Your task to perform on an android device: turn notification dots on Image 0: 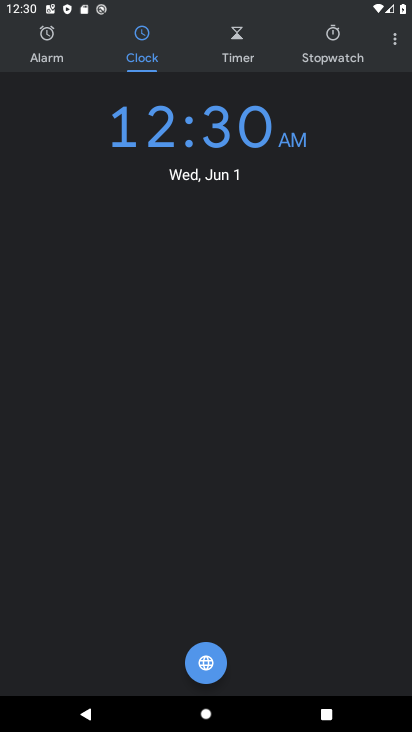
Step 0: press home button
Your task to perform on an android device: turn notification dots on Image 1: 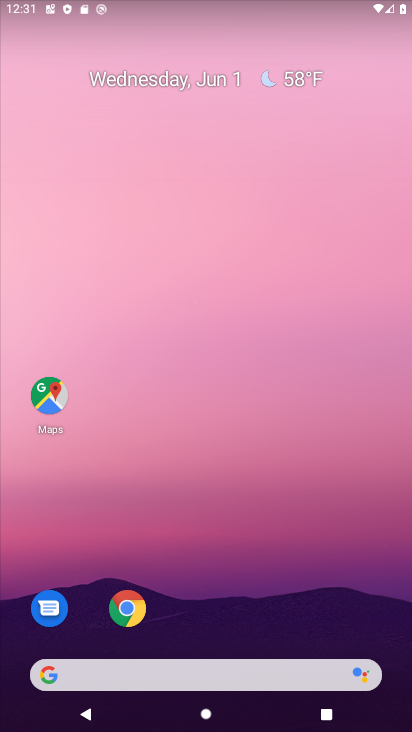
Step 1: drag from (249, 638) to (221, 168)
Your task to perform on an android device: turn notification dots on Image 2: 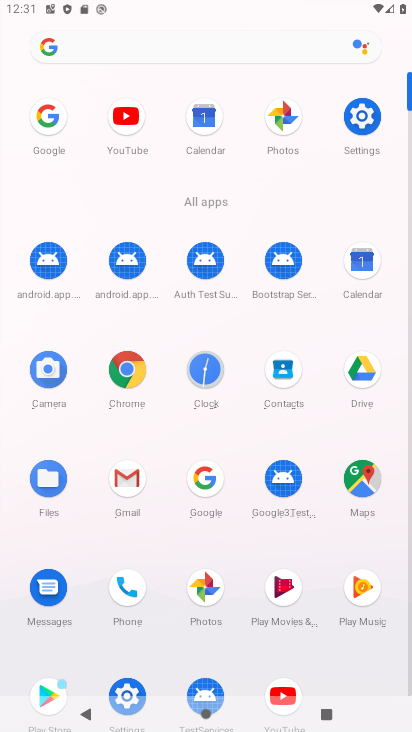
Step 2: click (371, 119)
Your task to perform on an android device: turn notification dots on Image 3: 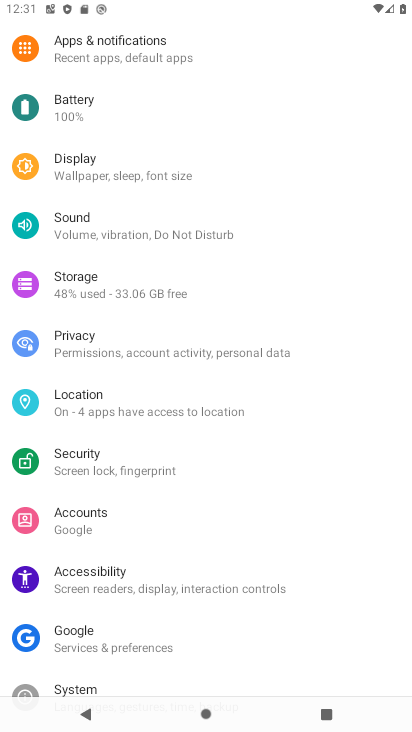
Step 3: click (116, 38)
Your task to perform on an android device: turn notification dots on Image 4: 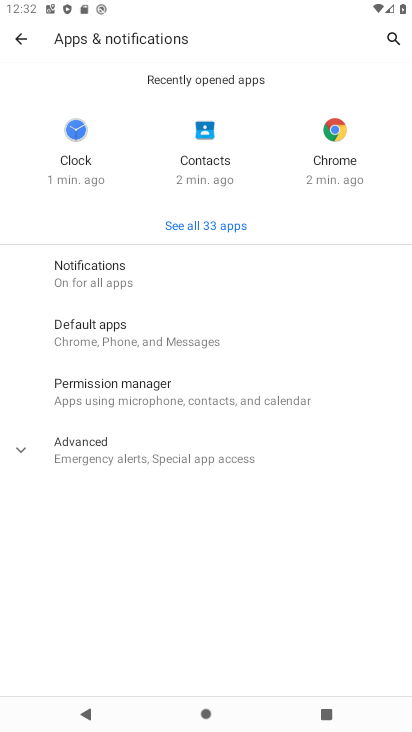
Step 4: click (127, 287)
Your task to perform on an android device: turn notification dots on Image 5: 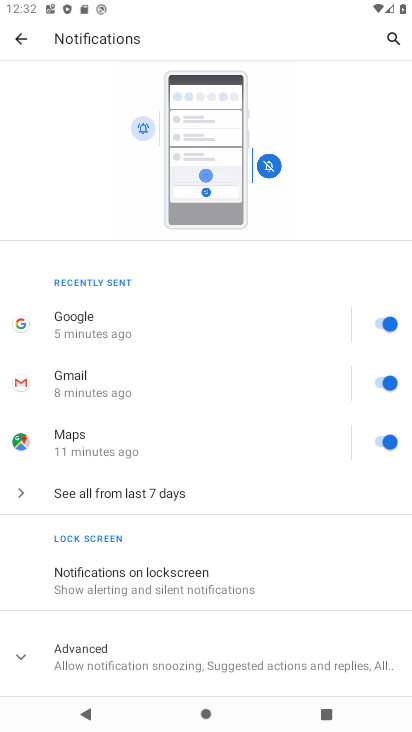
Step 5: drag from (154, 606) to (182, 178)
Your task to perform on an android device: turn notification dots on Image 6: 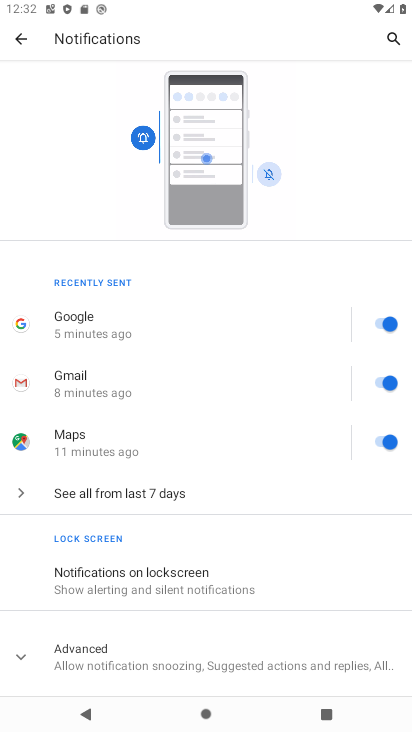
Step 6: click (97, 648)
Your task to perform on an android device: turn notification dots on Image 7: 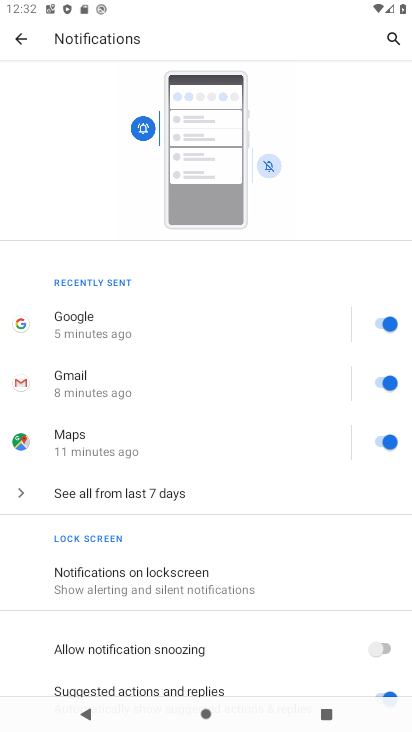
Step 7: task complete